Your task to perform on an android device: Check the news Image 0: 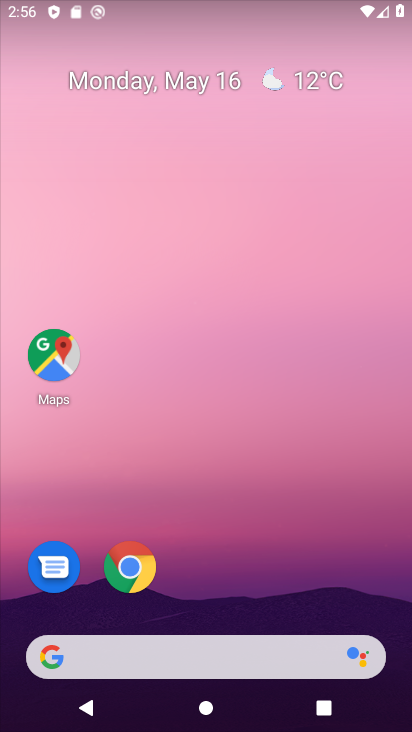
Step 0: drag from (31, 246) to (390, 313)
Your task to perform on an android device: Check the news Image 1: 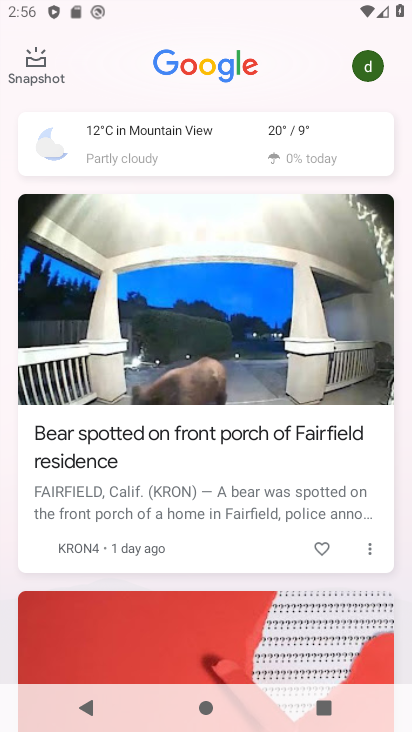
Step 1: task complete